Your task to perform on an android device: Go to Google maps Image 0: 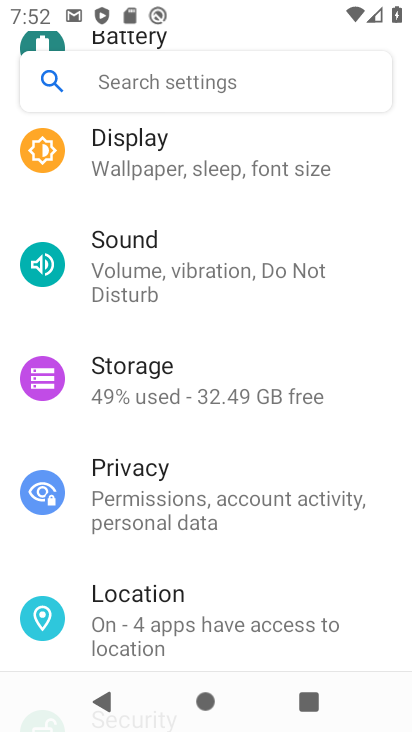
Step 0: press home button
Your task to perform on an android device: Go to Google maps Image 1: 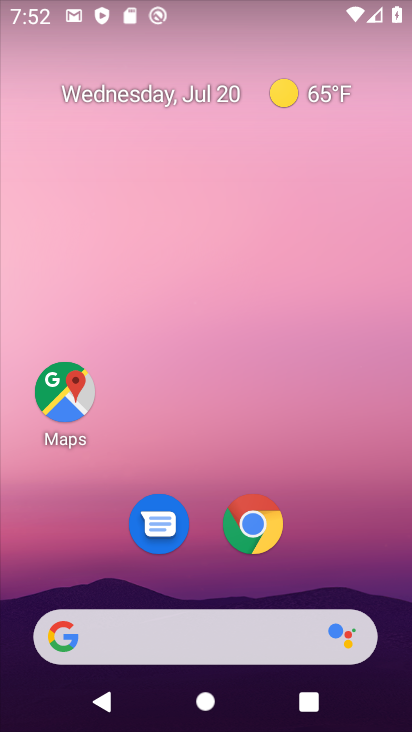
Step 1: click (71, 398)
Your task to perform on an android device: Go to Google maps Image 2: 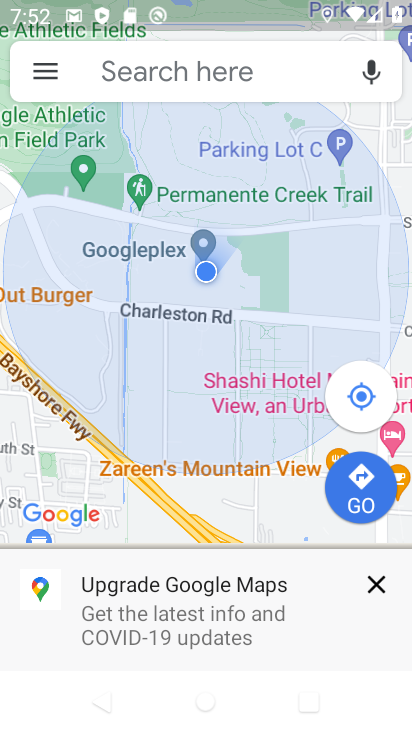
Step 2: task complete